Your task to perform on an android device: move an email to a new category in the gmail app Image 0: 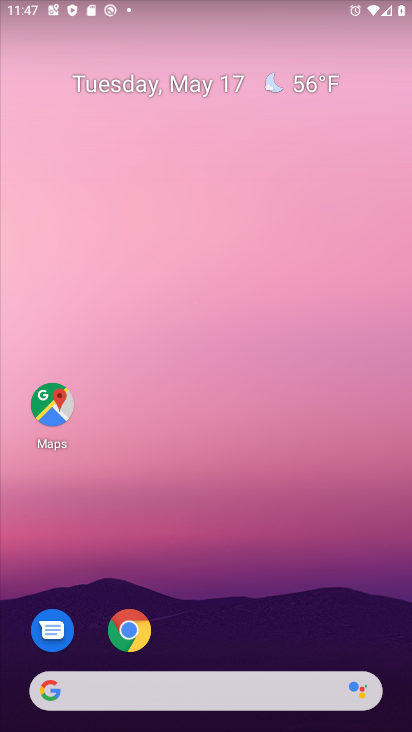
Step 0: drag from (307, 550) to (314, 188)
Your task to perform on an android device: move an email to a new category in the gmail app Image 1: 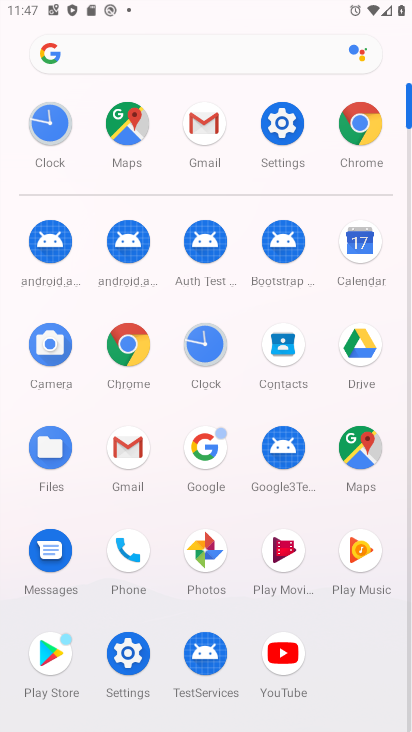
Step 1: click (133, 448)
Your task to perform on an android device: move an email to a new category in the gmail app Image 2: 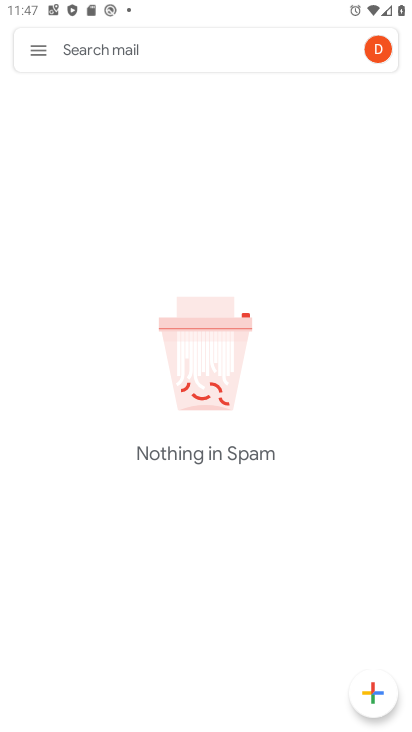
Step 2: click (25, 43)
Your task to perform on an android device: move an email to a new category in the gmail app Image 3: 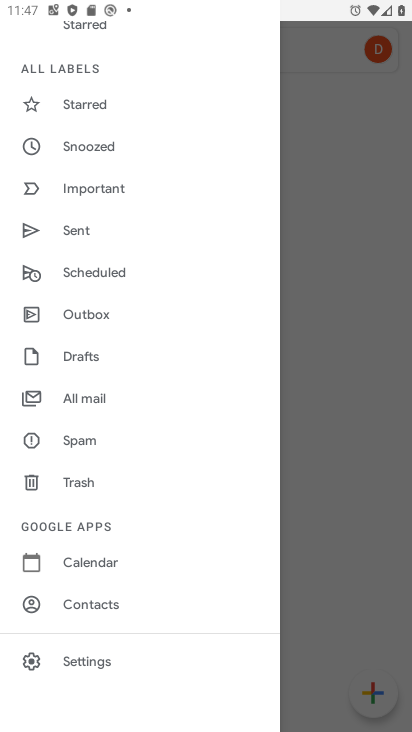
Step 3: click (87, 406)
Your task to perform on an android device: move an email to a new category in the gmail app Image 4: 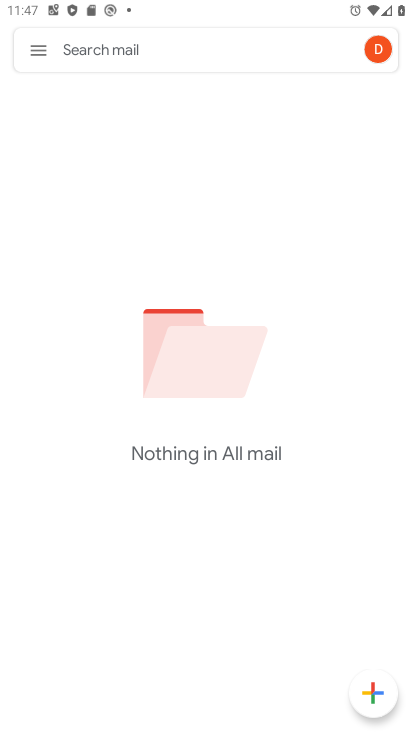
Step 4: task complete